Your task to perform on an android device: Add "alienware area 51" to the cart on bestbuy Image 0: 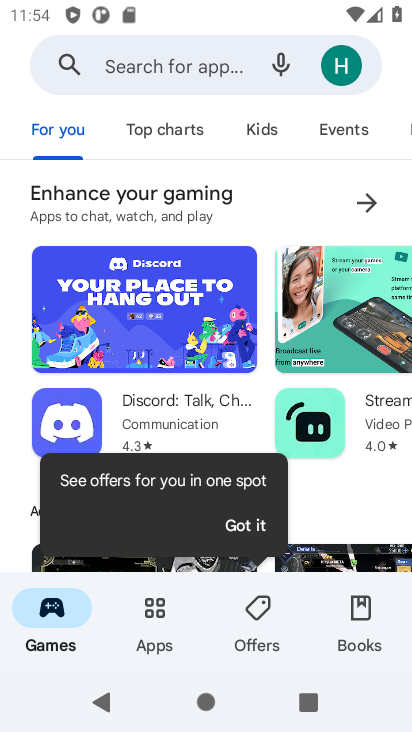
Step 0: press home button
Your task to perform on an android device: Add "alienware area 51" to the cart on bestbuy Image 1: 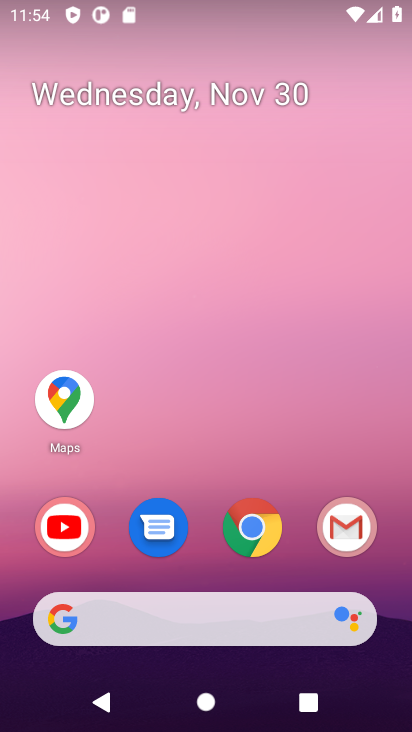
Step 1: click (242, 533)
Your task to perform on an android device: Add "alienware area 51" to the cart on bestbuy Image 2: 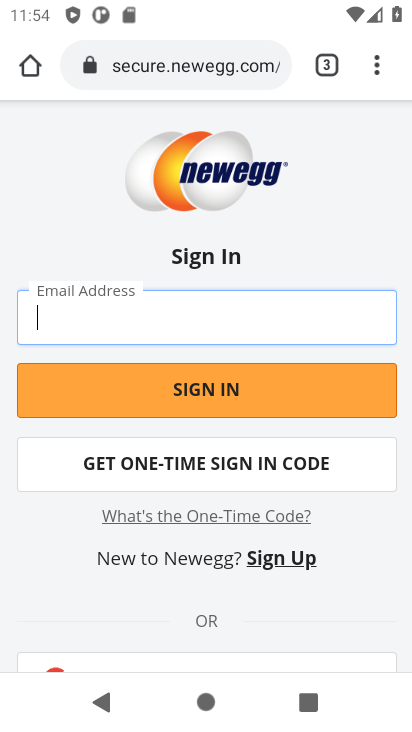
Step 2: click (151, 72)
Your task to perform on an android device: Add "alienware area 51" to the cart on bestbuy Image 3: 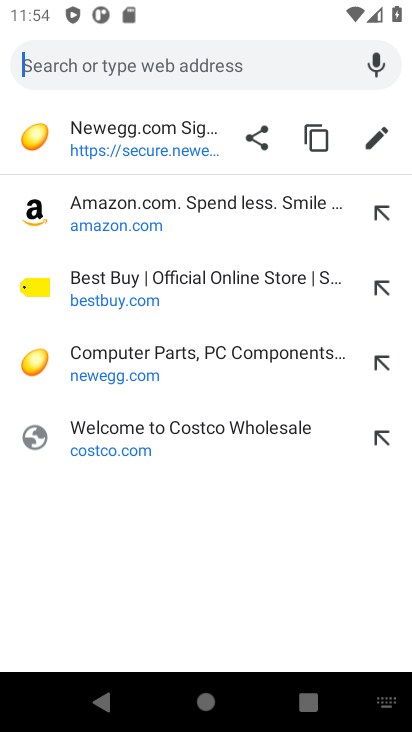
Step 3: click (114, 265)
Your task to perform on an android device: Add "alienware area 51" to the cart on bestbuy Image 4: 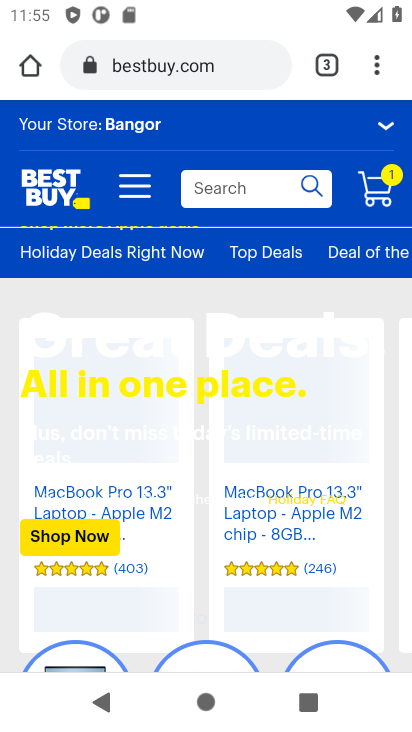
Step 4: click (223, 186)
Your task to perform on an android device: Add "alienware area 51" to the cart on bestbuy Image 5: 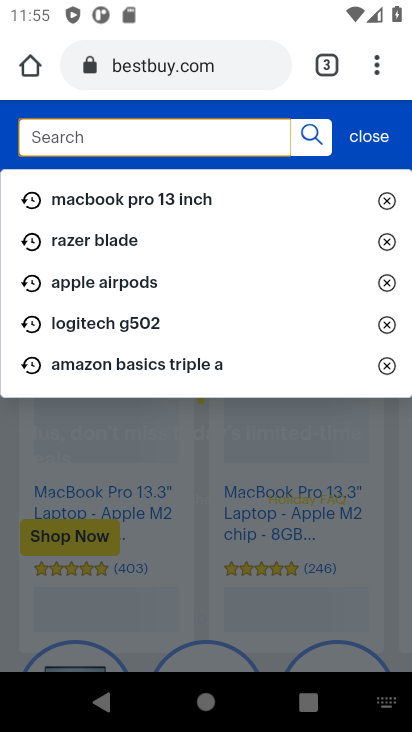
Step 5: type "alienware area 51"
Your task to perform on an android device: Add "alienware area 51" to the cart on bestbuy Image 6: 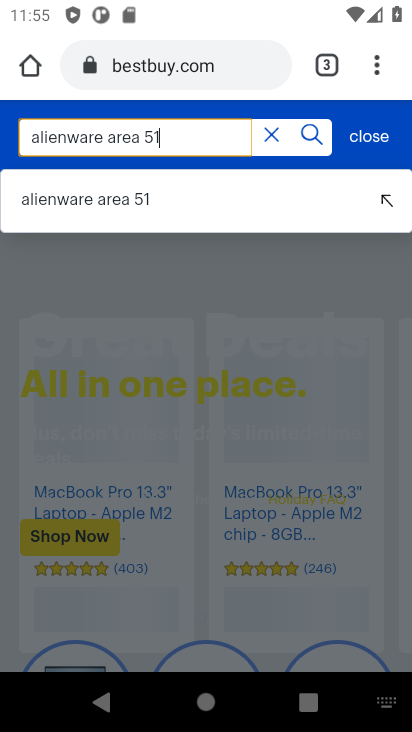
Step 6: click (104, 211)
Your task to perform on an android device: Add "alienware area 51" to the cart on bestbuy Image 7: 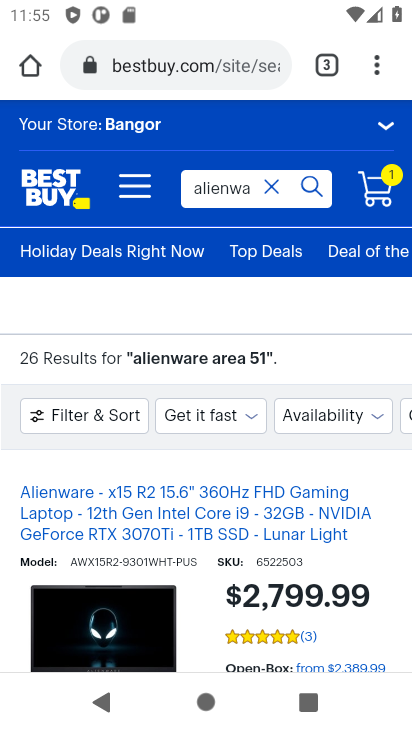
Step 7: drag from (202, 621) to (183, 267)
Your task to perform on an android device: Add "alienware area 51" to the cart on bestbuy Image 8: 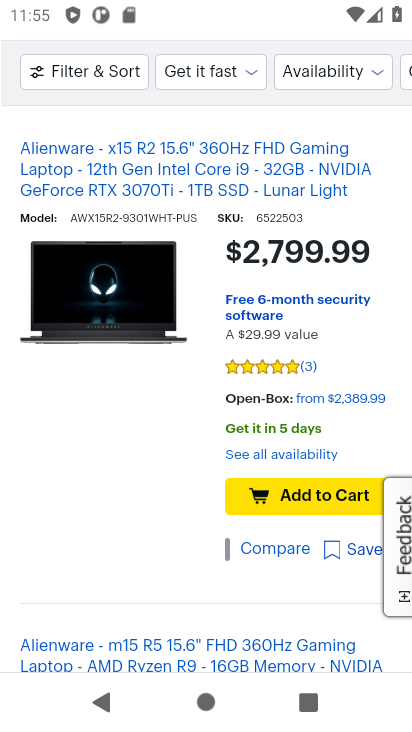
Step 8: drag from (180, 493) to (172, 276)
Your task to perform on an android device: Add "alienware area 51" to the cart on bestbuy Image 9: 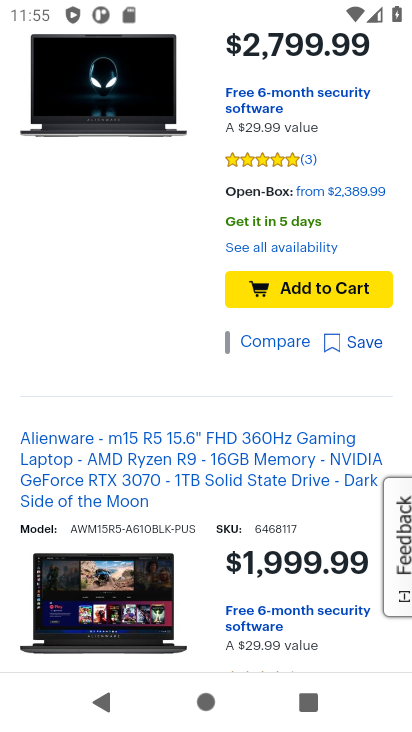
Step 9: drag from (155, 568) to (153, 261)
Your task to perform on an android device: Add "alienware area 51" to the cart on bestbuy Image 10: 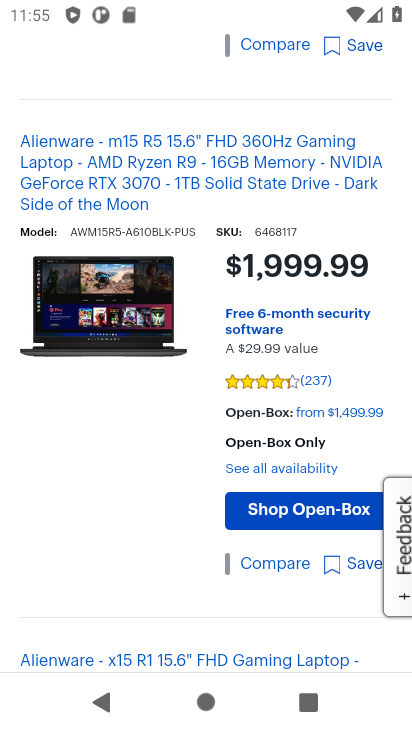
Step 10: drag from (138, 523) to (139, 122)
Your task to perform on an android device: Add "alienware area 51" to the cart on bestbuy Image 11: 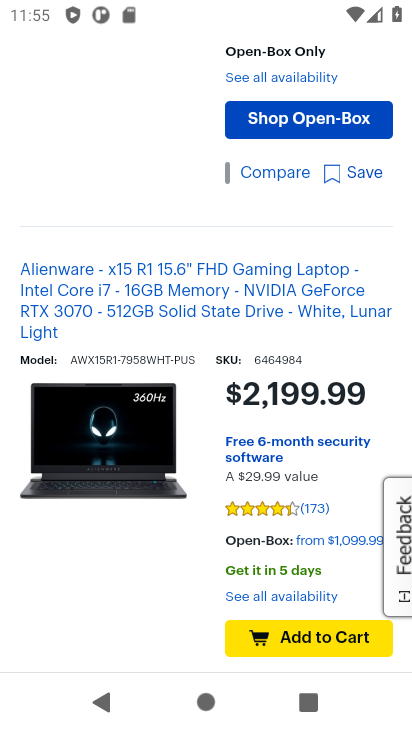
Step 11: drag from (131, 397) to (138, 150)
Your task to perform on an android device: Add "alienware area 51" to the cart on bestbuy Image 12: 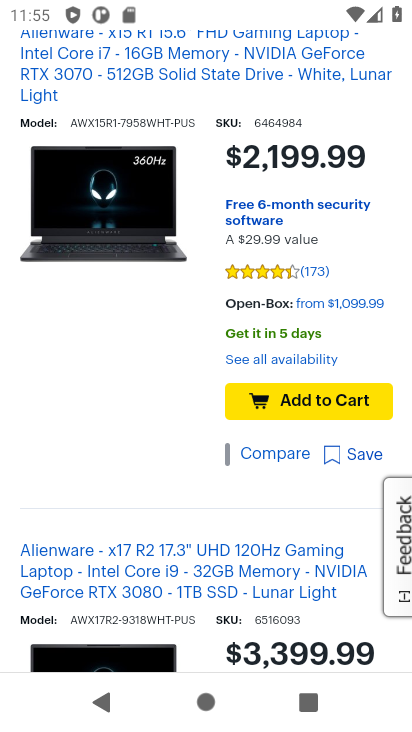
Step 12: drag from (154, 491) to (137, 209)
Your task to perform on an android device: Add "alienware area 51" to the cart on bestbuy Image 13: 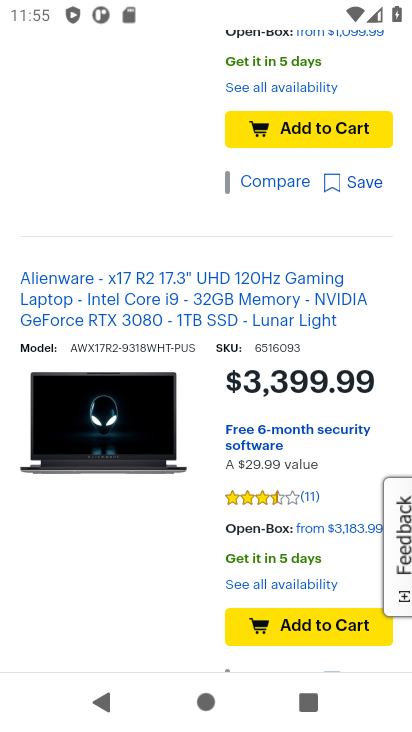
Step 13: drag from (140, 449) to (125, 152)
Your task to perform on an android device: Add "alienware area 51" to the cart on bestbuy Image 14: 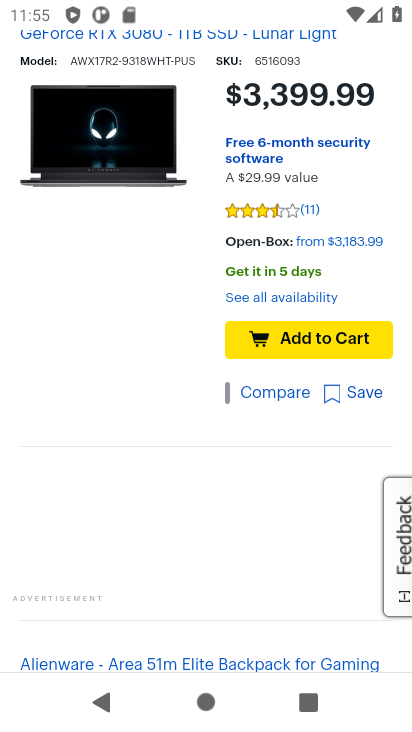
Step 14: drag from (126, 436) to (120, 135)
Your task to perform on an android device: Add "alienware area 51" to the cart on bestbuy Image 15: 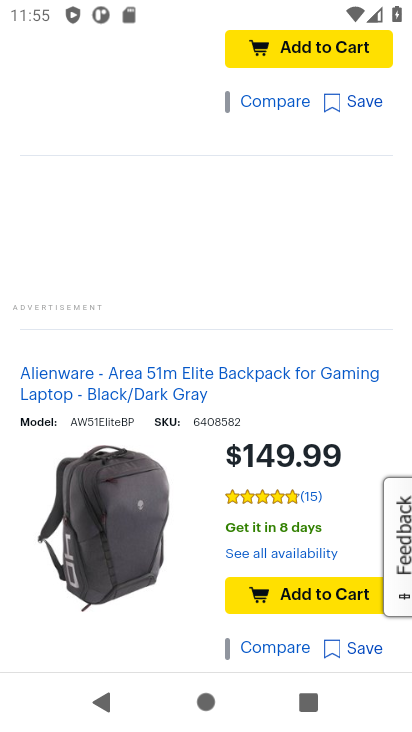
Step 15: drag from (133, 487) to (126, 309)
Your task to perform on an android device: Add "alienware area 51" to the cart on bestbuy Image 16: 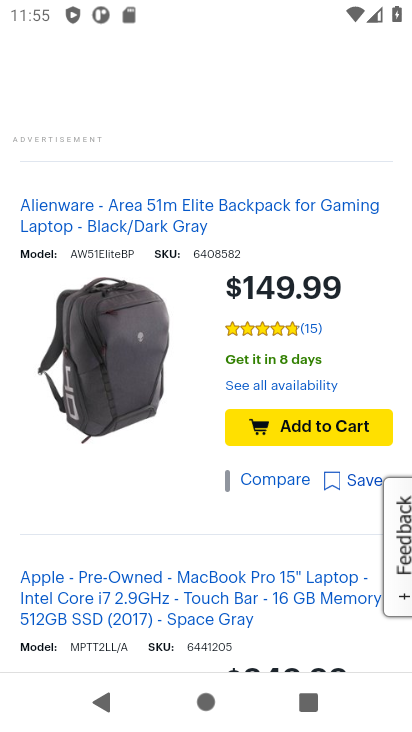
Step 16: click (301, 429)
Your task to perform on an android device: Add "alienware area 51" to the cart on bestbuy Image 17: 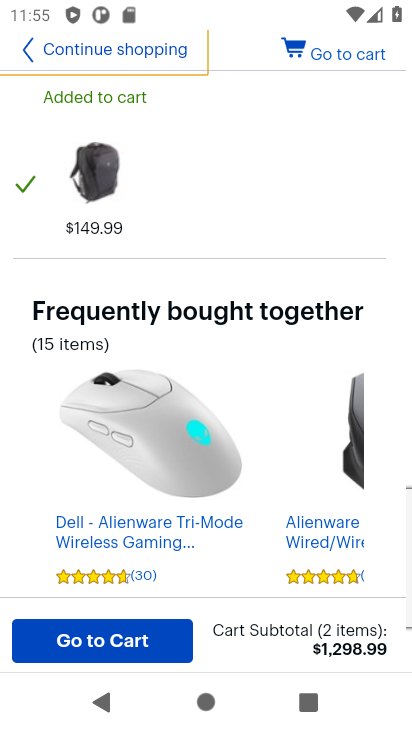
Step 17: task complete